Your task to perform on an android device: What's on my calendar today? Image 0: 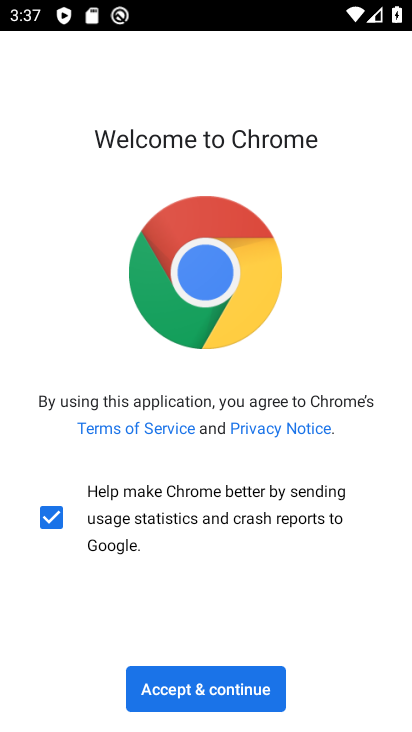
Step 0: press home button
Your task to perform on an android device: What's on my calendar today? Image 1: 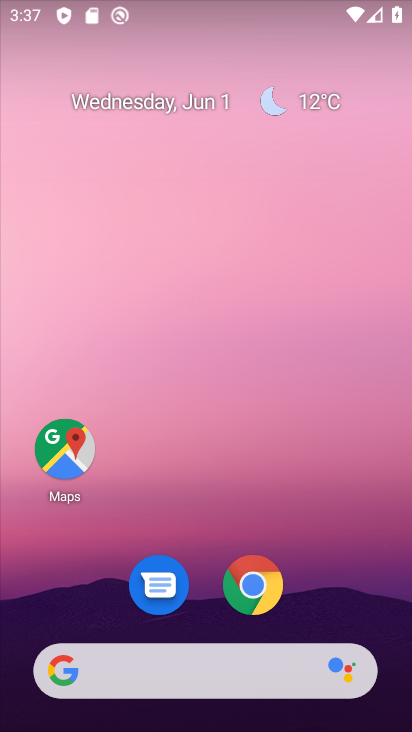
Step 1: drag from (243, 517) to (296, 53)
Your task to perform on an android device: What's on my calendar today? Image 2: 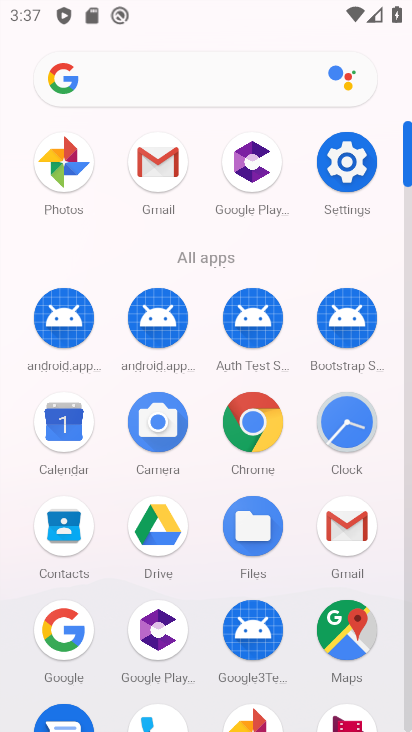
Step 2: click (65, 423)
Your task to perform on an android device: What's on my calendar today? Image 3: 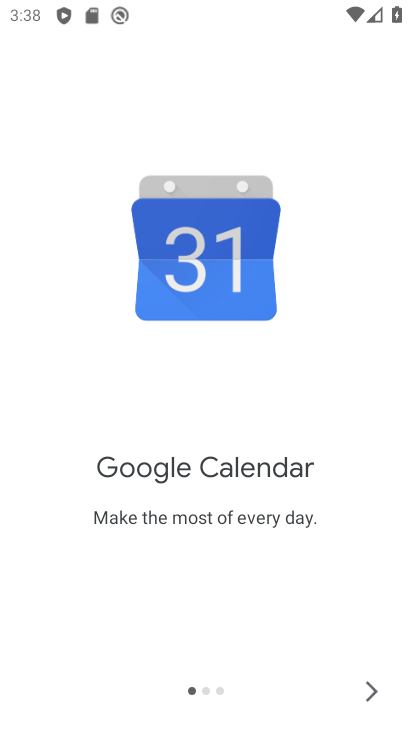
Step 3: click (367, 690)
Your task to perform on an android device: What's on my calendar today? Image 4: 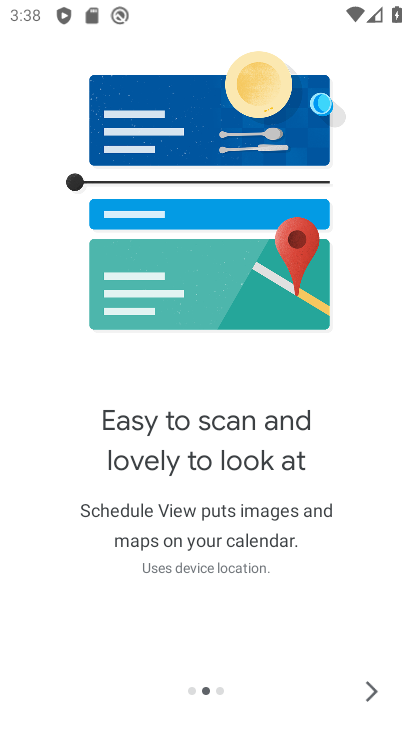
Step 4: click (367, 690)
Your task to perform on an android device: What's on my calendar today? Image 5: 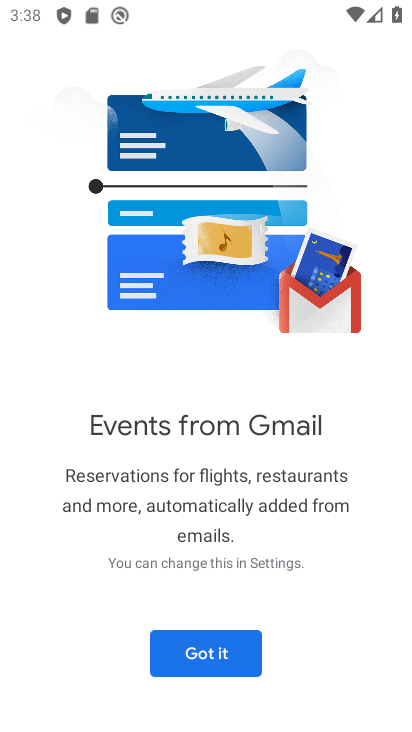
Step 5: click (228, 657)
Your task to perform on an android device: What's on my calendar today? Image 6: 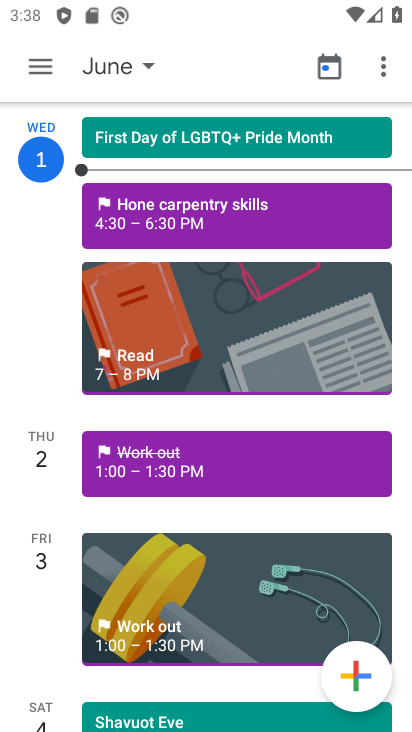
Step 6: task complete